Your task to perform on an android device: Go to battery settings Image 0: 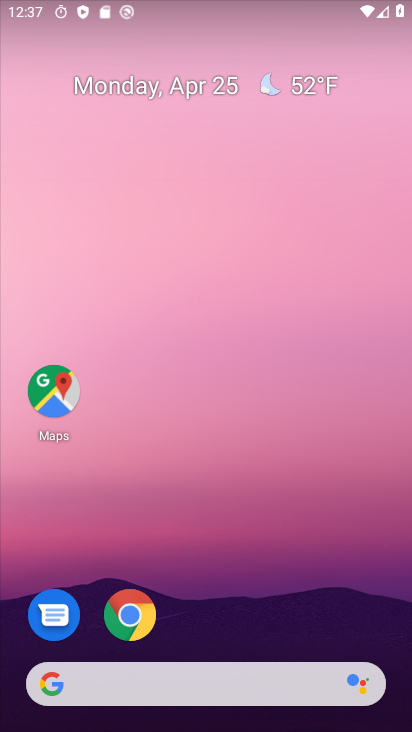
Step 0: drag from (192, 653) to (327, 17)
Your task to perform on an android device: Go to battery settings Image 1: 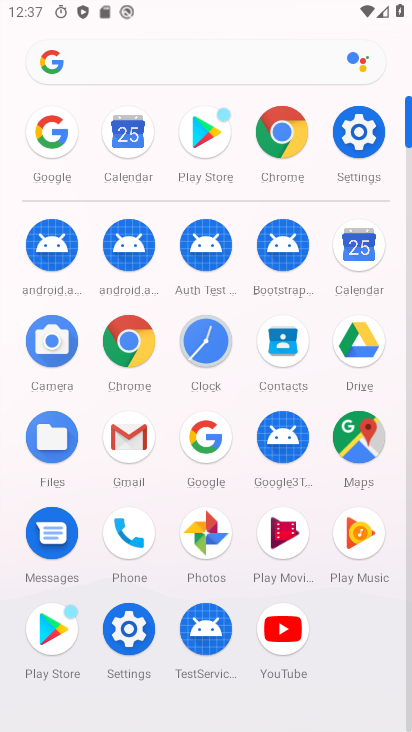
Step 1: click (361, 143)
Your task to perform on an android device: Go to battery settings Image 2: 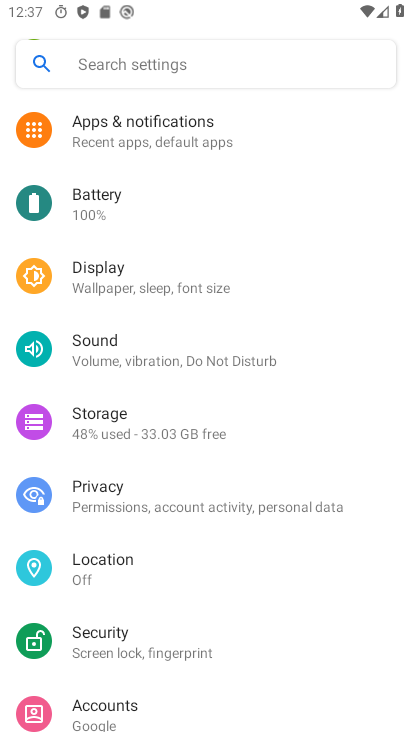
Step 2: click (91, 218)
Your task to perform on an android device: Go to battery settings Image 3: 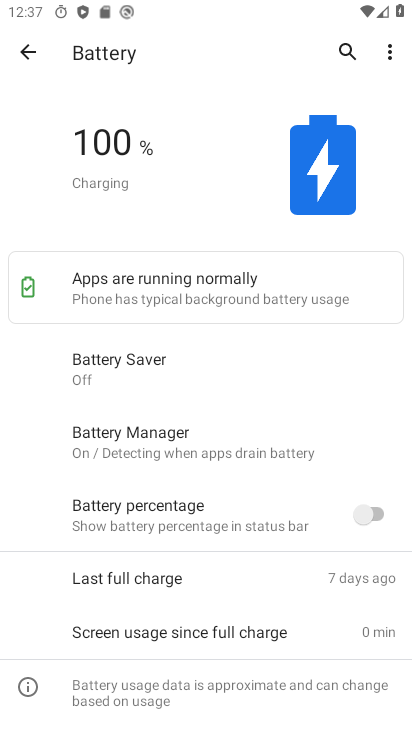
Step 3: task complete